Your task to perform on an android device: change timer sound Image 0: 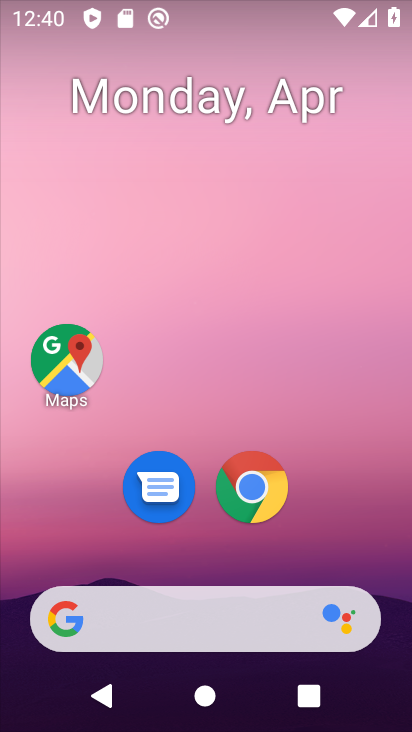
Step 0: drag from (357, 416) to (279, 161)
Your task to perform on an android device: change timer sound Image 1: 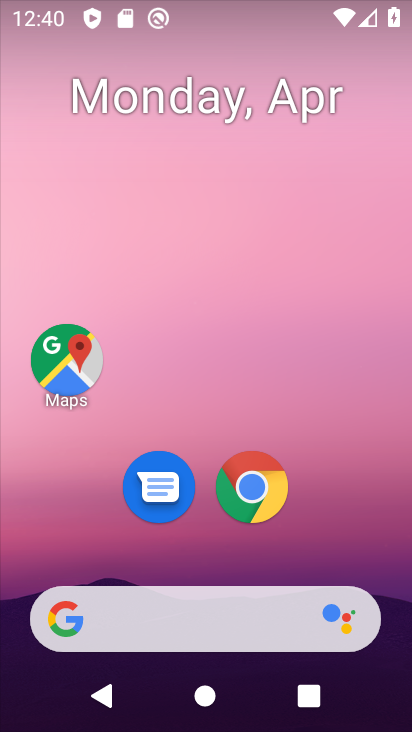
Step 1: drag from (391, 621) to (244, 66)
Your task to perform on an android device: change timer sound Image 2: 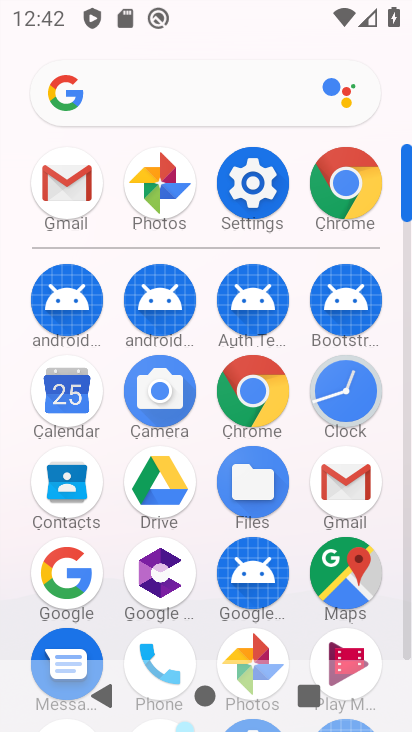
Step 2: click (345, 411)
Your task to perform on an android device: change timer sound Image 3: 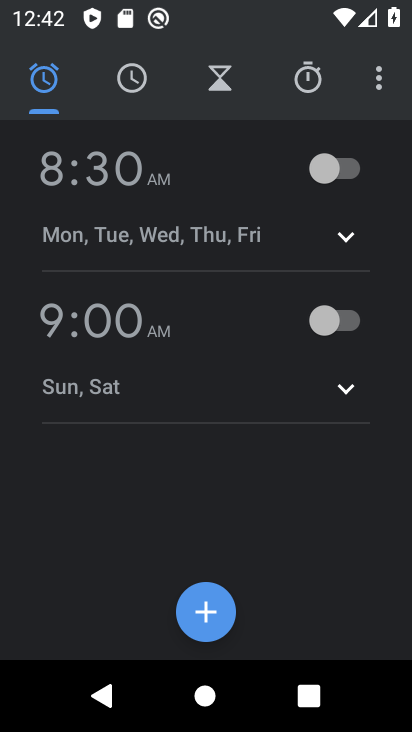
Step 3: click (376, 78)
Your task to perform on an android device: change timer sound Image 4: 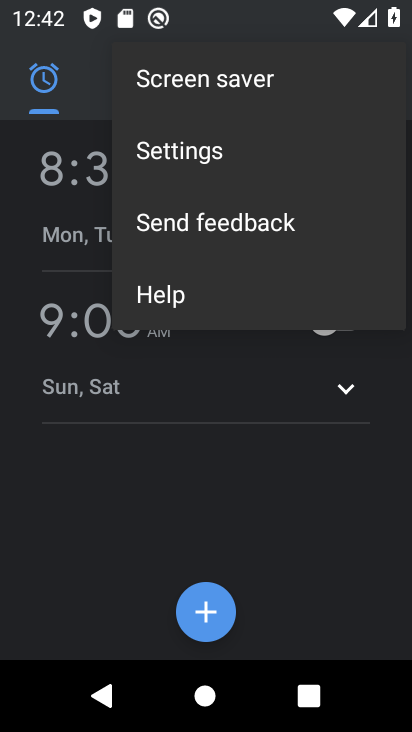
Step 4: click (235, 167)
Your task to perform on an android device: change timer sound Image 5: 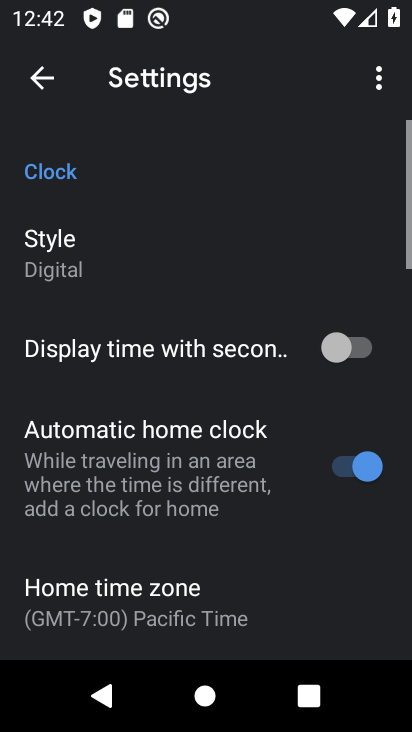
Step 5: drag from (161, 564) to (209, 128)
Your task to perform on an android device: change timer sound Image 6: 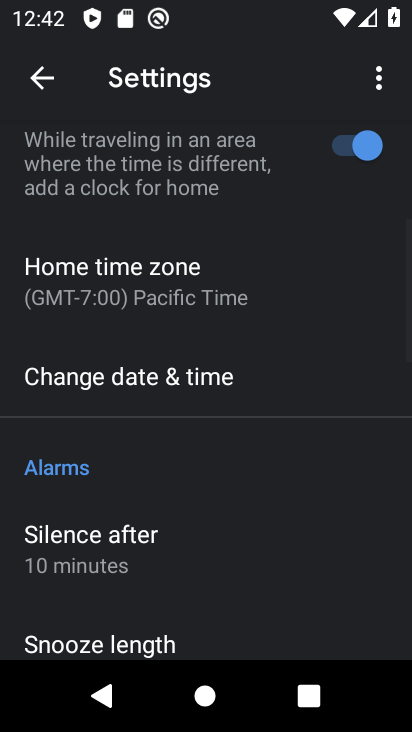
Step 6: drag from (183, 536) to (252, 148)
Your task to perform on an android device: change timer sound Image 7: 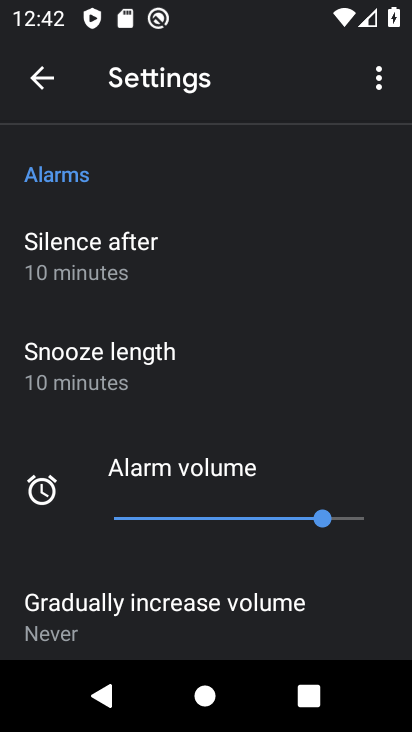
Step 7: drag from (193, 546) to (249, 123)
Your task to perform on an android device: change timer sound Image 8: 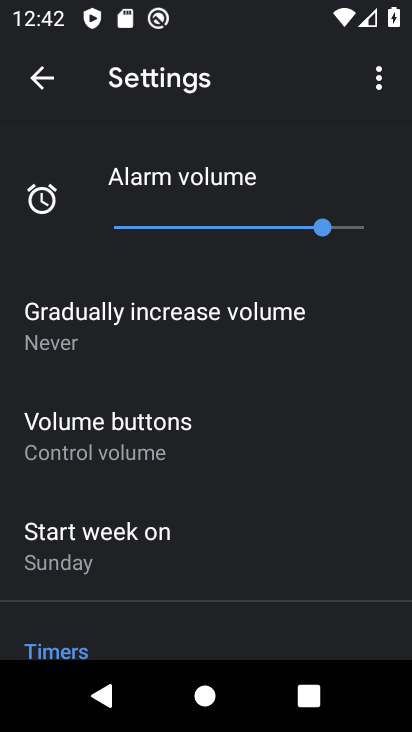
Step 8: drag from (216, 575) to (293, 163)
Your task to perform on an android device: change timer sound Image 9: 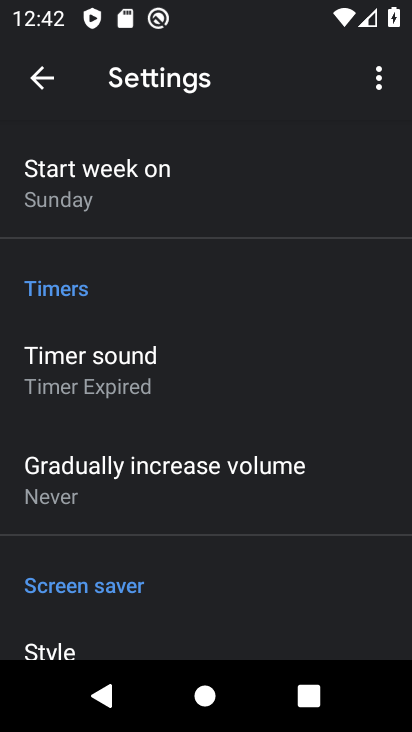
Step 9: click (167, 364)
Your task to perform on an android device: change timer sound Image 10: 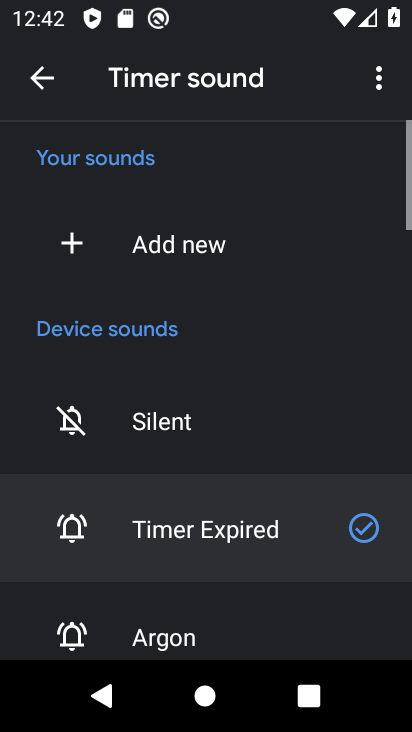
Step 10: click (186, 663)
Your task to perform on an android device: change timer sound Image 11: 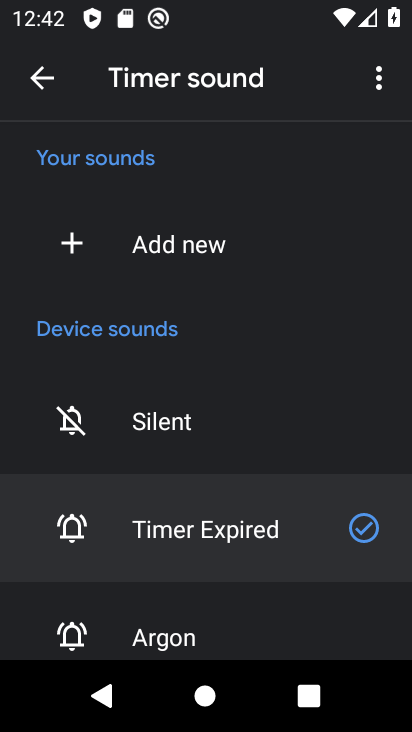
Step 11: click (203, 635)
Your task to perform on an android device: change timer sound Image 12: 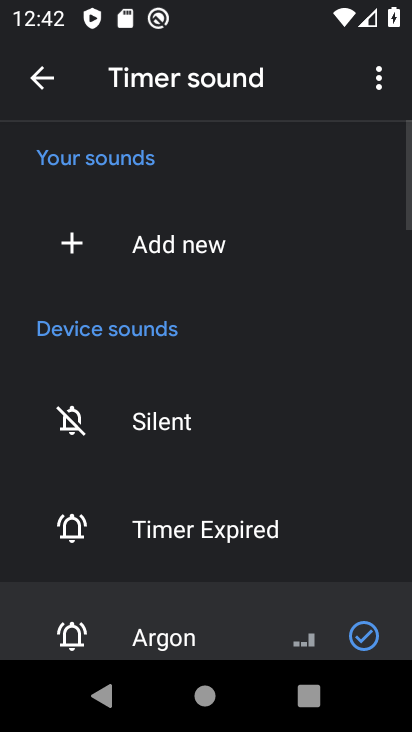
Step 12: task complete